Your task to perform on an android device: toggle javascript in the chrome app Image 0: 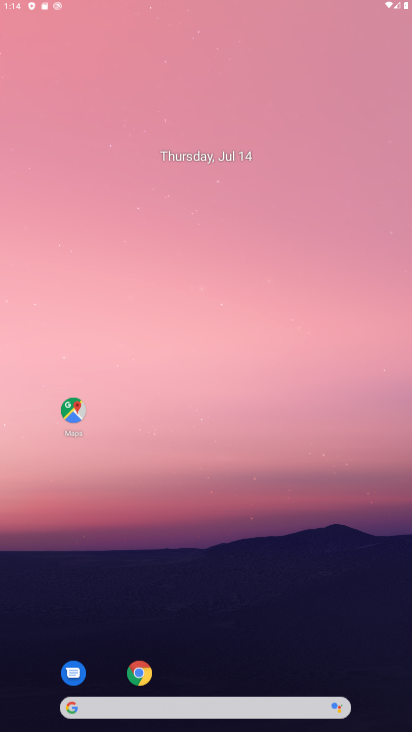
Step 0: click (317, 32)
Your task to perform on an android device: toggle javascript in the chrome app Image 1: 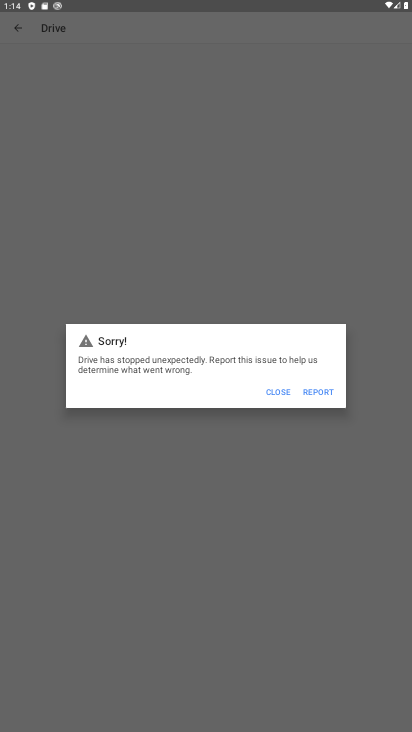
Step 1: press home button
Your task to perform on an android device: toggle javascript in the chrome app Image 2: 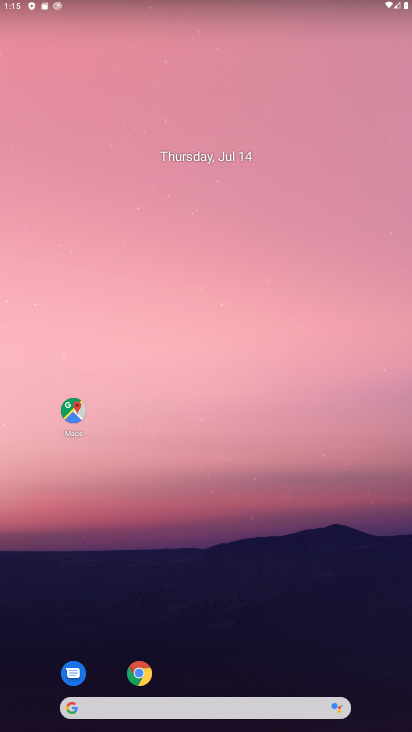
Step 2: drag from (192, 645) to (307, 87)
Your task to perform on an android device: toggle javascript in the chrome app Image 3: 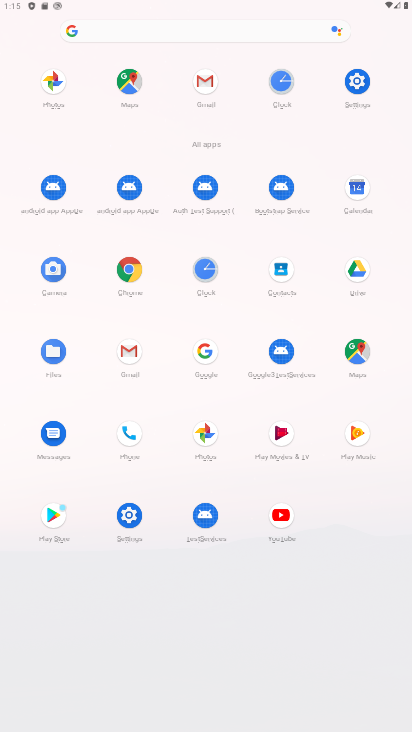
Step 3: click (139, 275)
Your task to perform on an android device: toggle javascript in the chrome app Image 4: 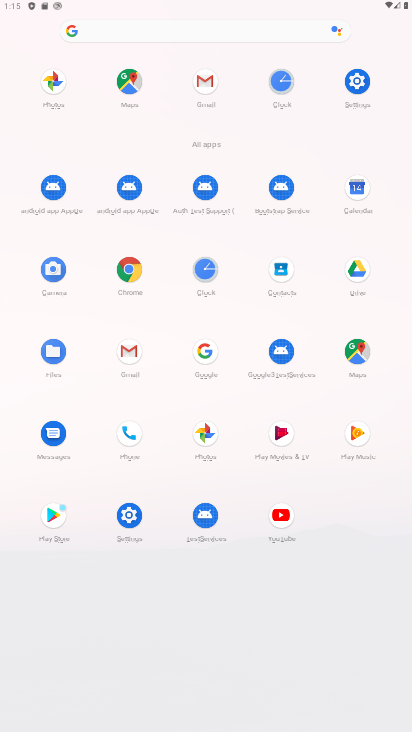
Step 4: click (130, 272)
Your task to perform on an android device: toggle javascript in the chrome app Image 5: 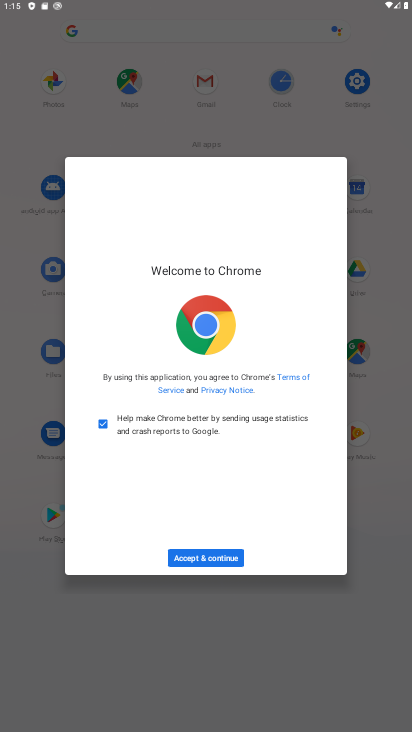
Step 5: click (205, 555)
Your task to perform on an android device: toggle javascript in the chrome app Image 6: 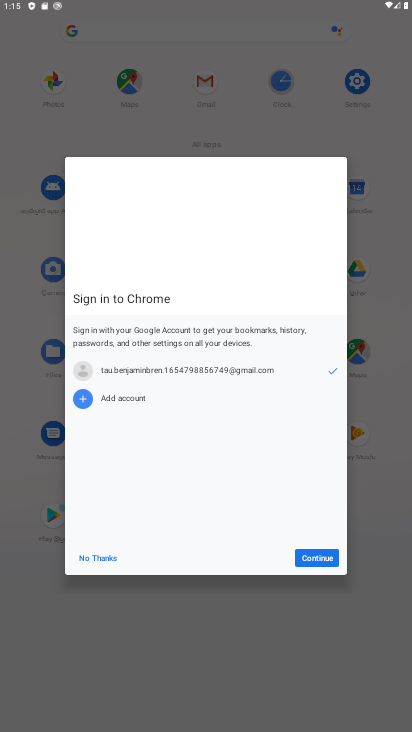
Step 6: click (317, 565)
Your task to perform on an android device: toggle javascript in the chrome app Image 7: 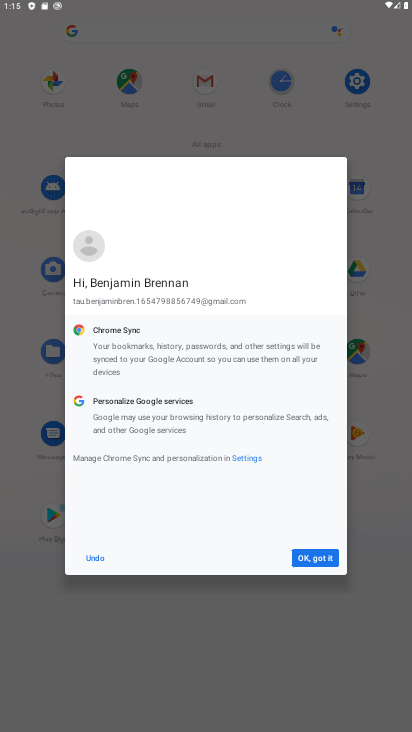
Step 7: click (317, 559)
Your task to perform on an android device: toggle javascript in the chrome app Image 8: 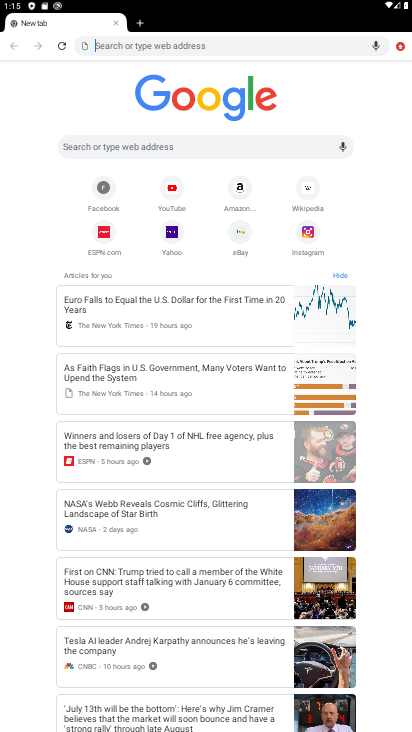
Step 8: drag from (404, 44) to (314, 238)
Your task to perform on an android device: toggle javascript in the chrome app Image 9: 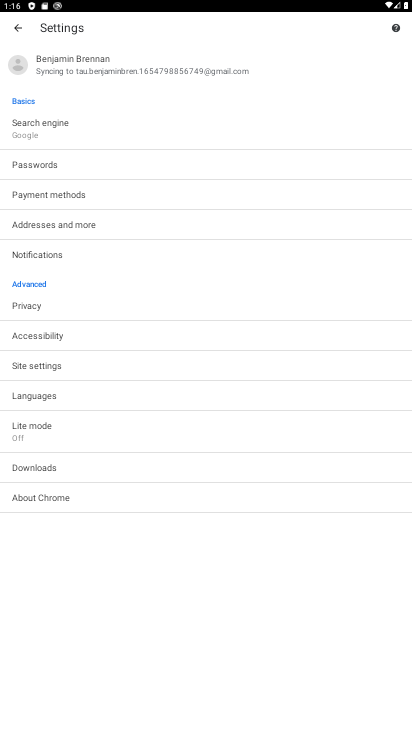
Step 9: click (130, 368)
Your task to perform on an android device: toggle javascript in the chrome app Image 10: 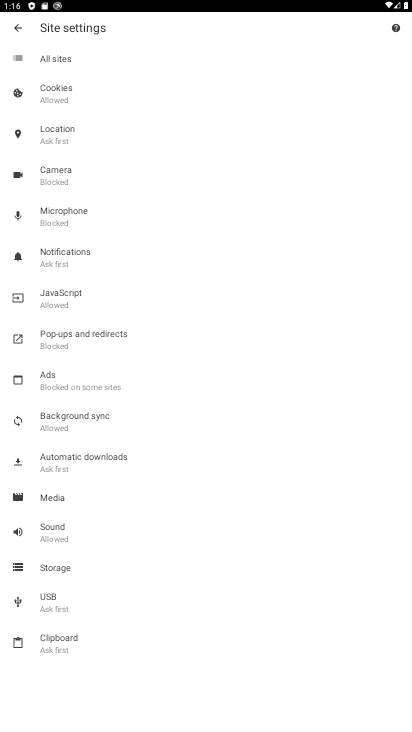
Step 10: click (75, 302)
Your task to perform on an android device: toggle javascript in the chrome app Image 11: 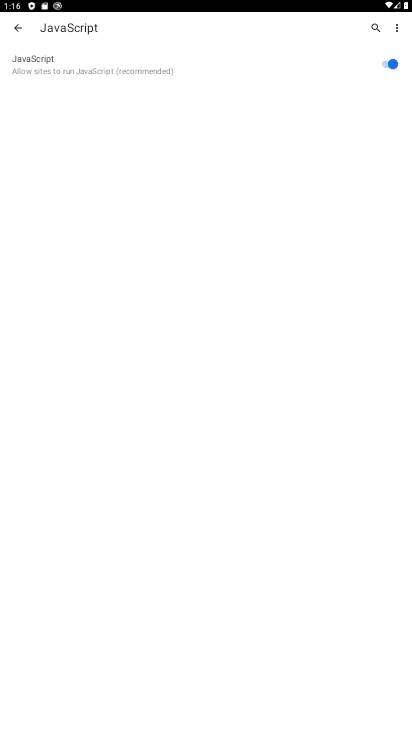
Step 11: click (387, 63)
Your task to perform on an android device: toggle javascript in the chrome app Image 12: 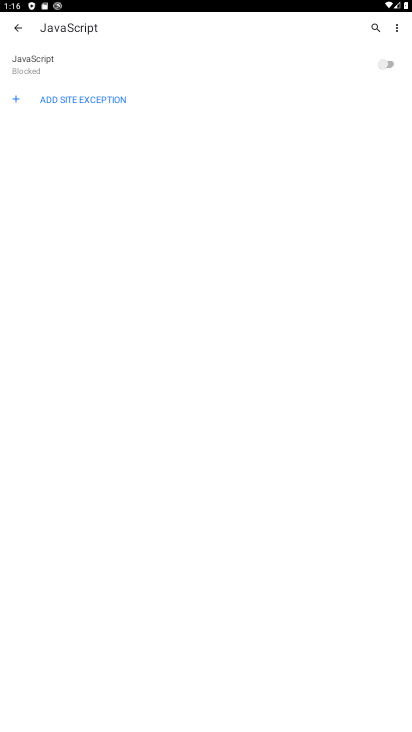
Step 12: task complete